Your task to perform on an android device: Open Chrome and go to settings Image 0: 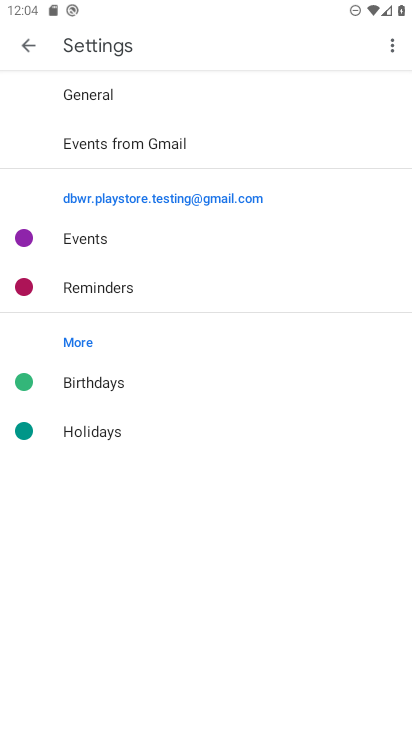
Step 0: press home button
Your task to perform on an android device: Open Chrome and go to settings Image 1: 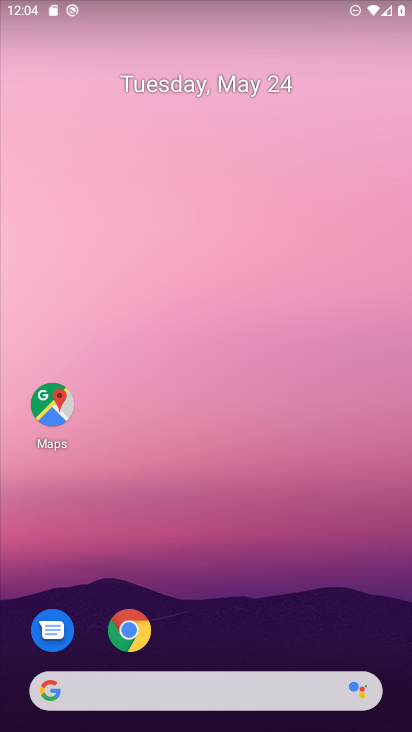
Step 1: click (125, 628)
Your task to perform on an android device: Open Chrome and go to settings Image 2: 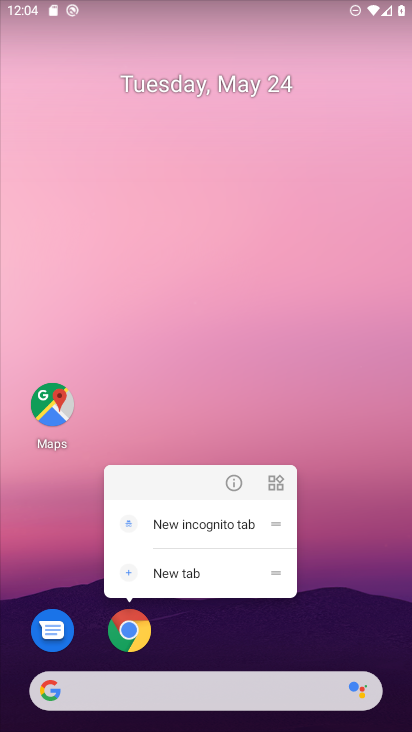
Step 2: click (129, 631)
Your task to perform on an android device: Open Chrome and go to settings Image 3: 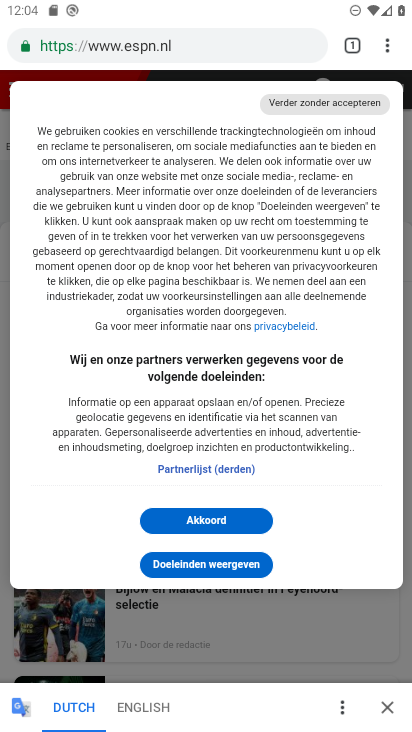
Step 3: click (388, 46)
Your task to perform on an android device: Open Chrome and go to settings Image 4: 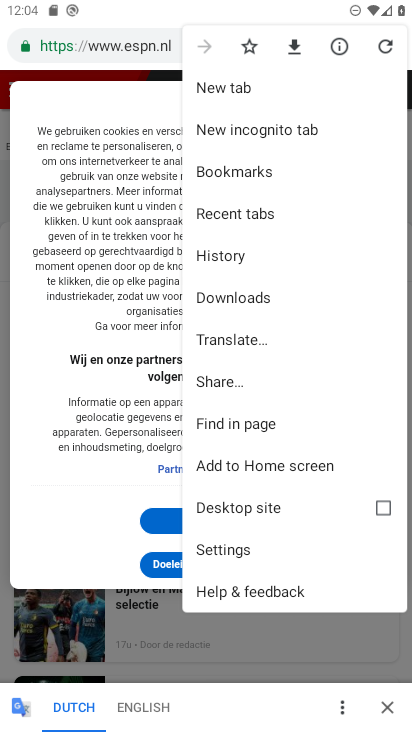
Step 4: click (240, 547)
Your task to perform on an android device: Open Chrome and go to settings Image 5: 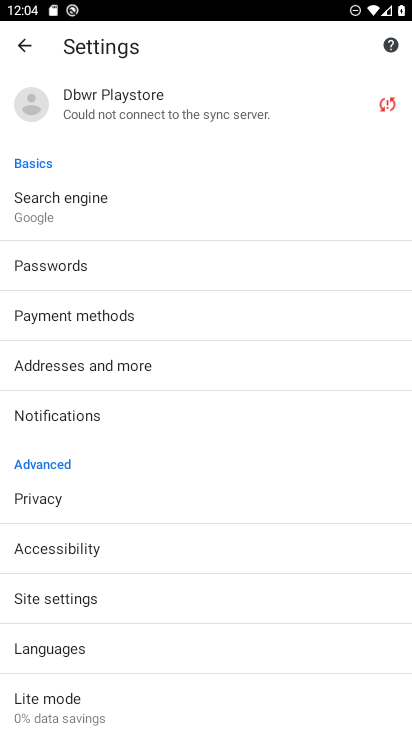
Step 5: task complete